Your task to perform on an android device: Open my contact list Image 0: 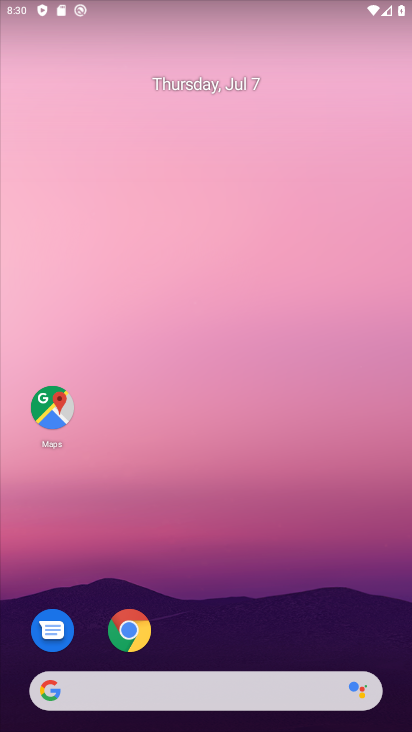
Step 0: click (139, 149)
Your task to perform on an android device: Open my contact list Image 1: 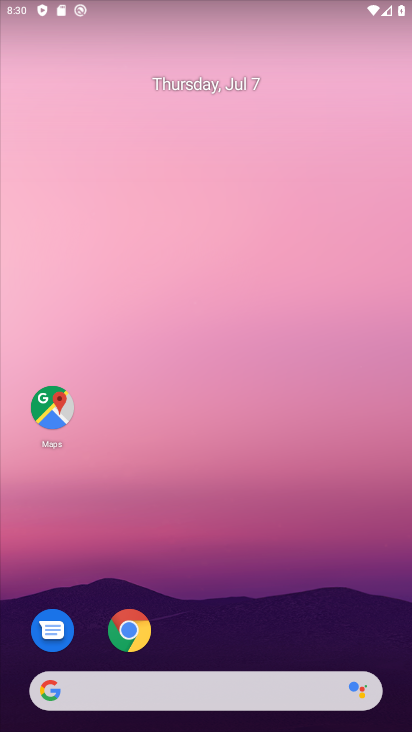
Step 1: drag from (196, 627) to (187, 248)
Your task to perform on an android device: Open my contact list Image 2: 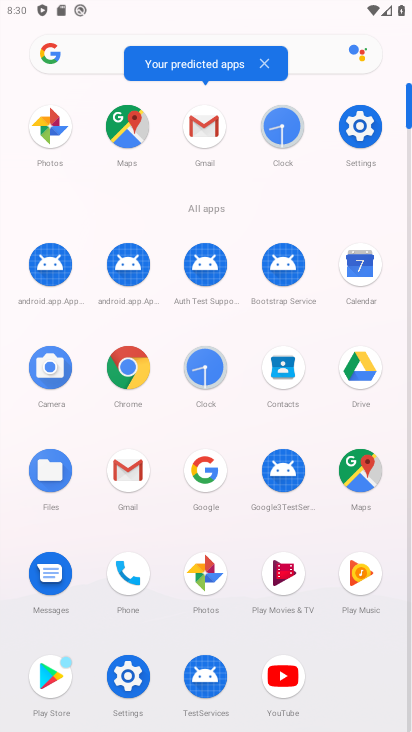
Step 2: click (282, 371)
Your task to perform on an android device: Open my contact list Image 3: 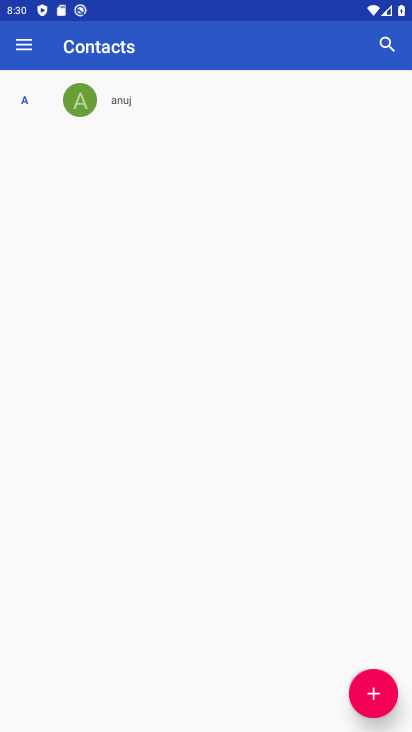
Step 3: task complete